Your task to perform on an android device: Search for logitech g pro on ebay.com, select the first entry, and add it to the cart. Image 0: 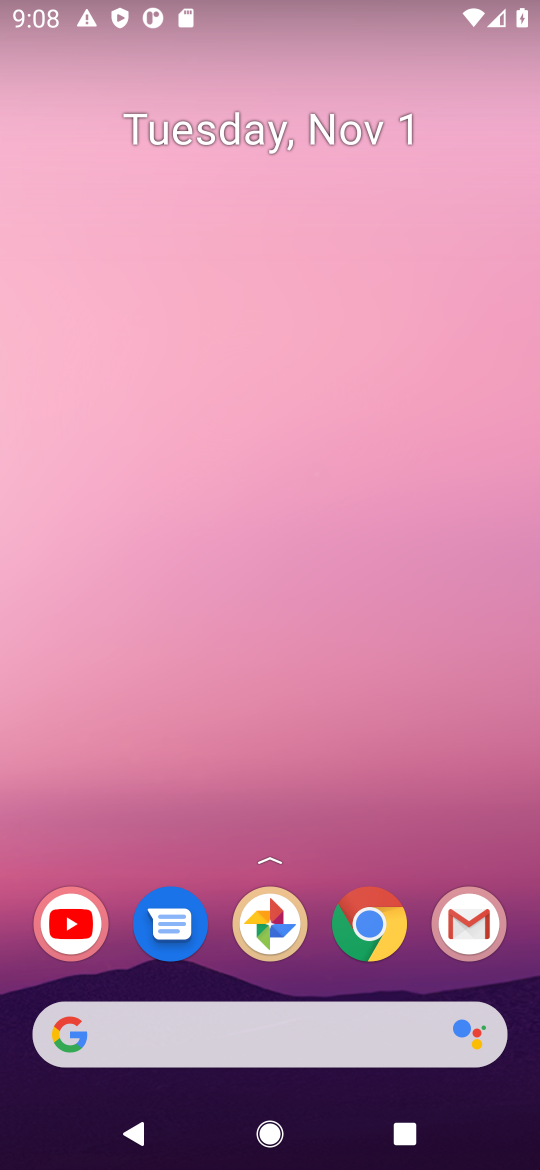
Step 0: click (362, 921)
Your task to perform on an android device: Search for logitech g pro on ebay.com, select the first entry, and add it to the cart. Image 1: 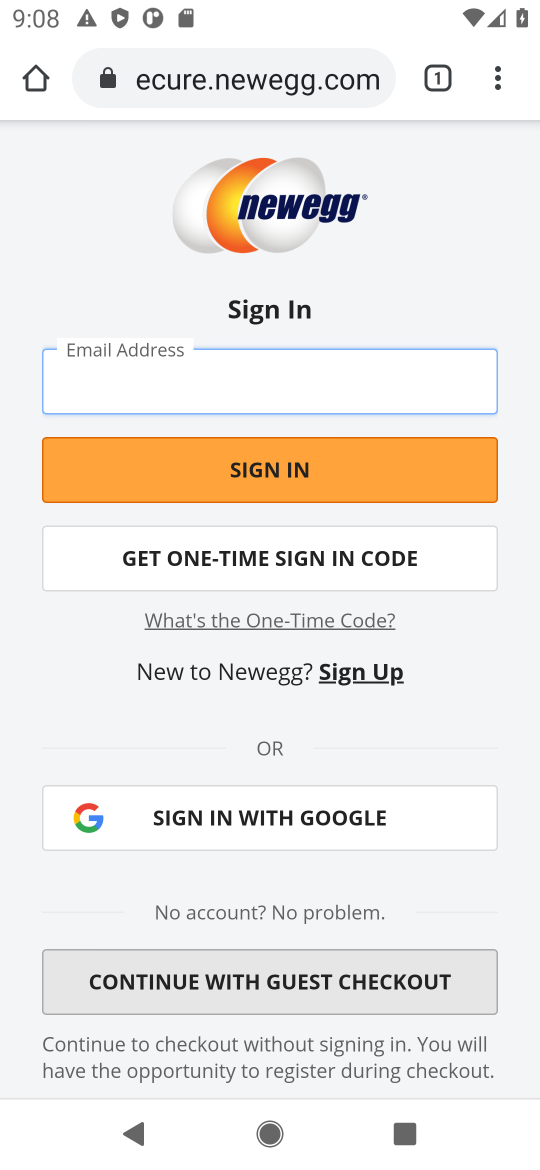
Step 1: click (206, 73)
Your task to perform on an android device: Search for logitech g pro on ebay.com, select the first entry, and add it to the cart. Image 2: 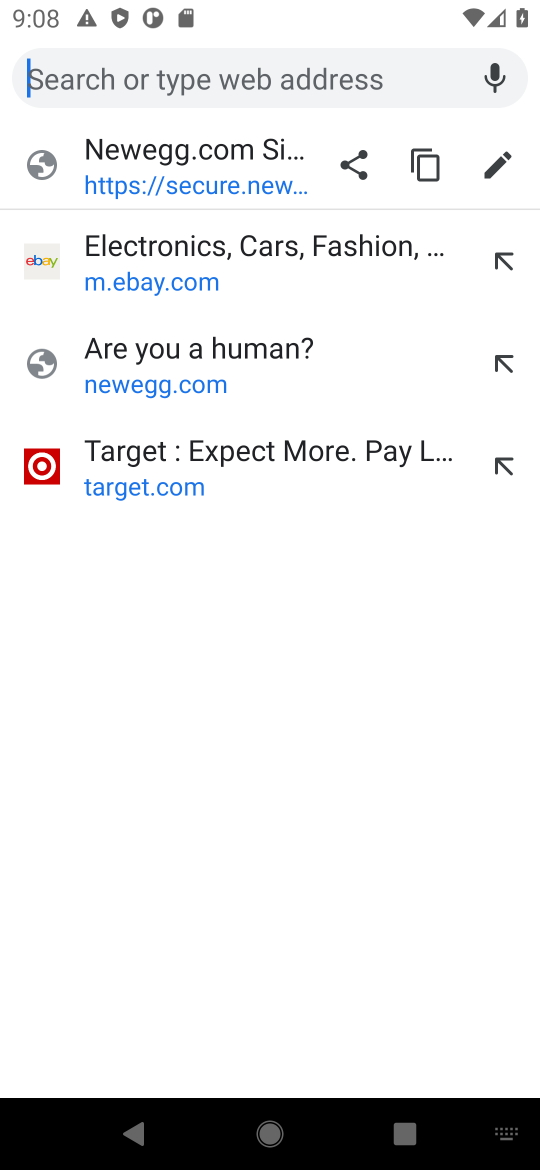
Step 2: type "ebay"
Your task to perform on an android device: Search for logitech g pro on ebay.com, select the first entry, and add it to the cart. Image 3: 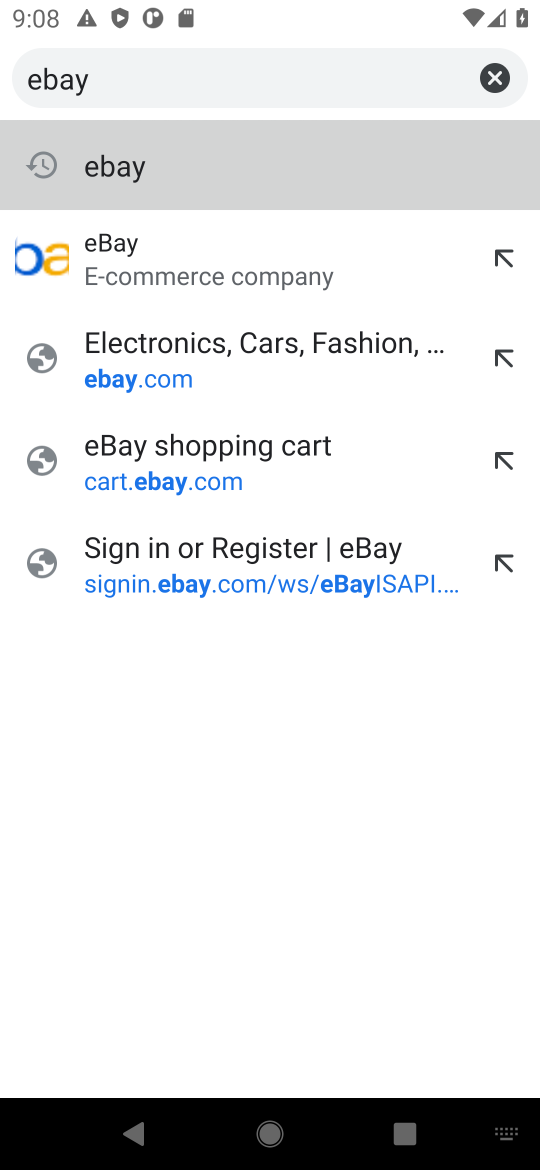
Step 3: click (133, 172)
Your task to perform on an android device: Search for logitech g pro on ebay.com, select the first entry, and add it to the cart. Image 4: 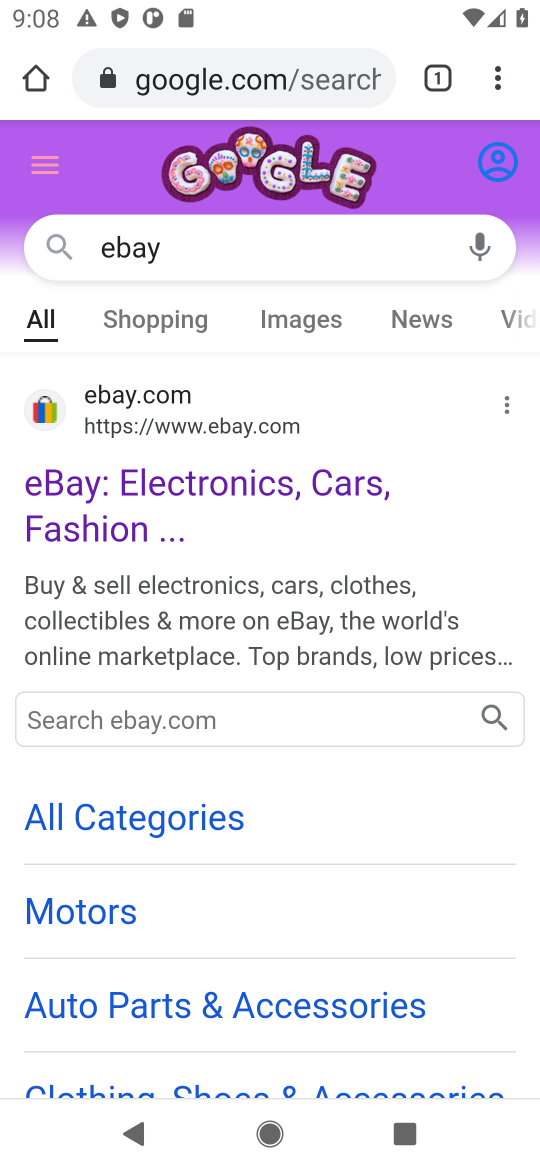
Step 4: click (88, 482)
Your task to perform on an android device: Search for logitech g pro on ebay.com, select the first entry, and add it to the cart. Image 5: 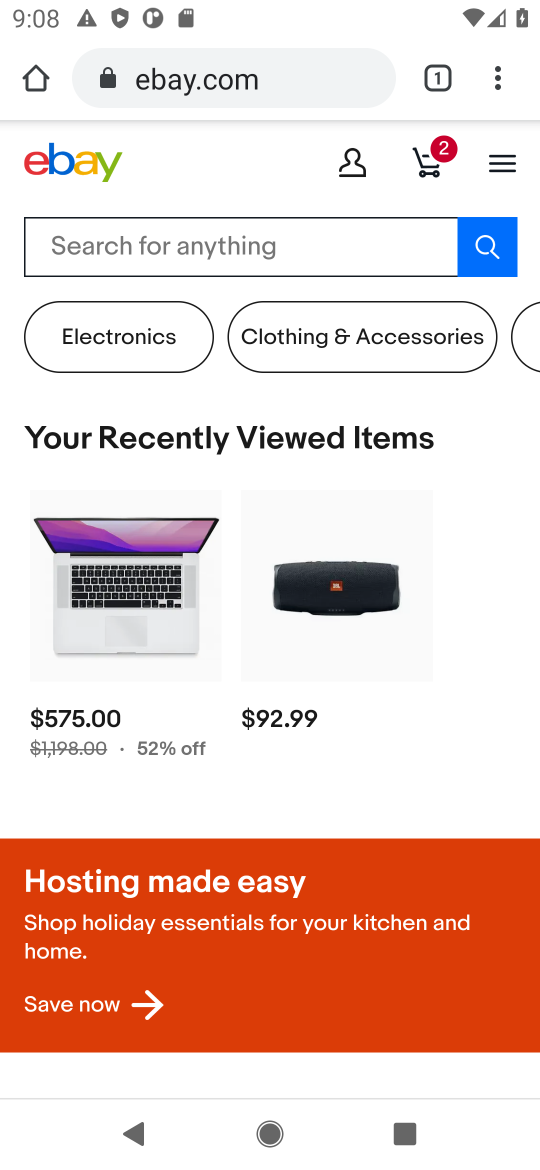
Step 5: click (270, 249)
Your task to perform on an android device: Search for logitech g pro on ebay.com, select the first entry, and add it to the cart. Image 6: 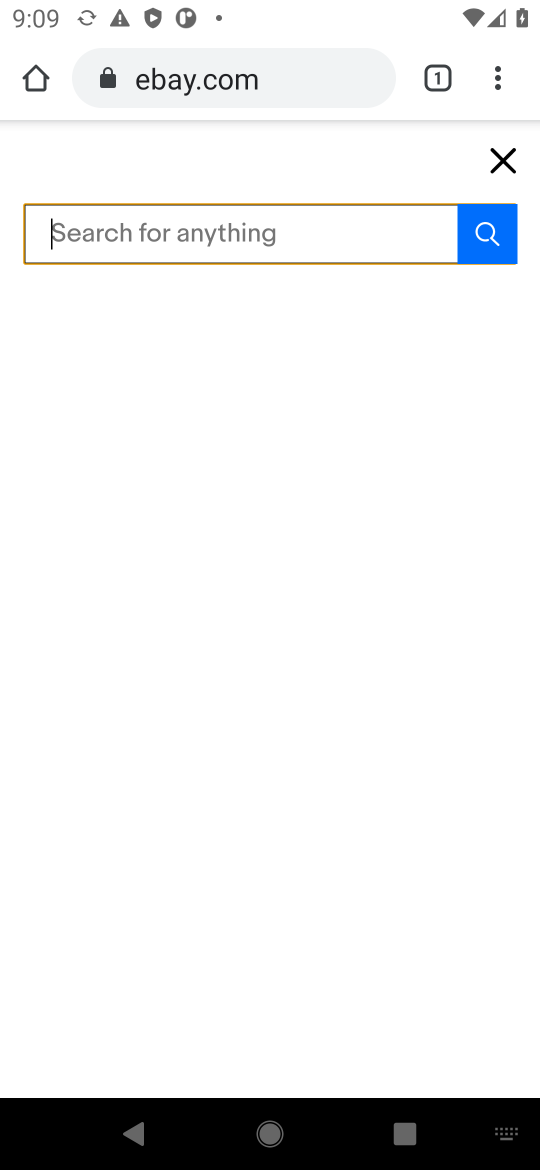
Step 6: type "logitech g pro"
Your task to perform on an android device: Search for logitech g pro on ebay.com, select the first entry, and add it to the cart. Image 7: 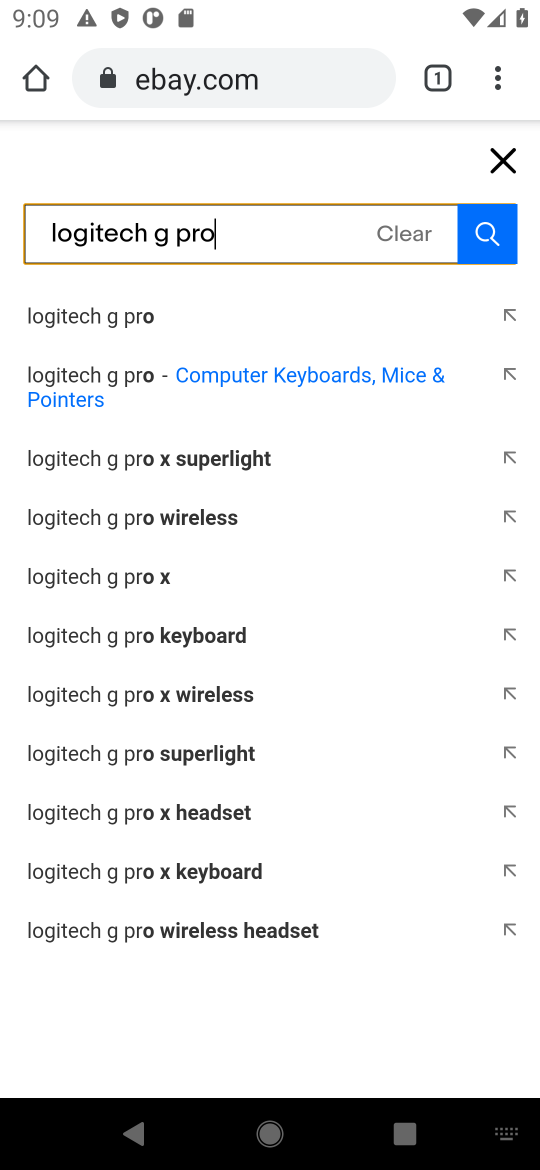
Step 7: click (66, 322)
Your task to perform on an android device: Search for logitech g pro on ebay.com, select the first entry, and add it to the cart. Image 8: 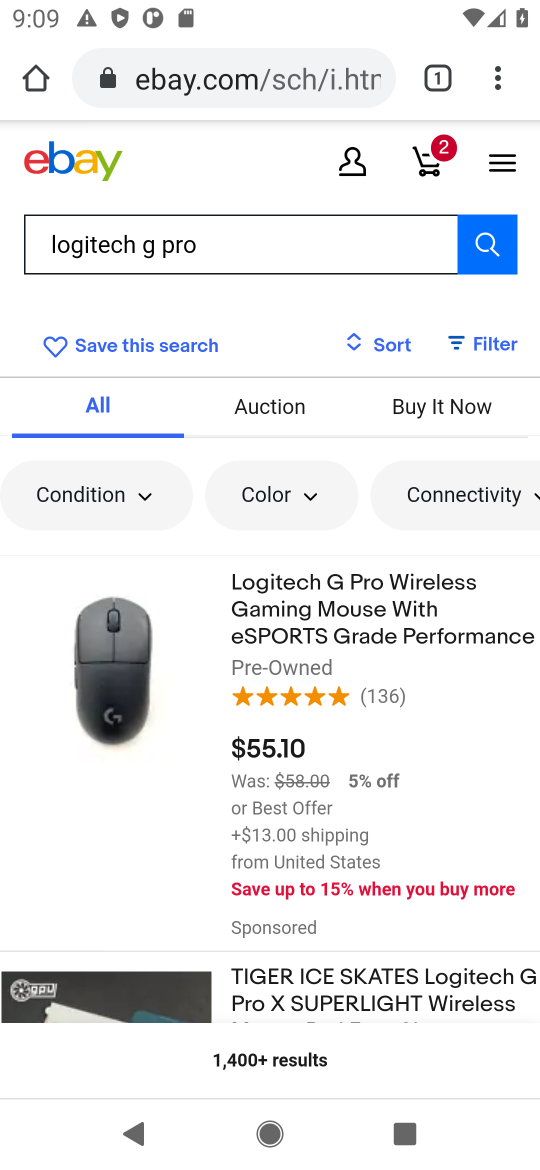
Step 8: click (194, 630)
Your task to perform on an android device: Search for logitech g pro on ebay.com, select the first entry, and add it to the cart. Image 9: 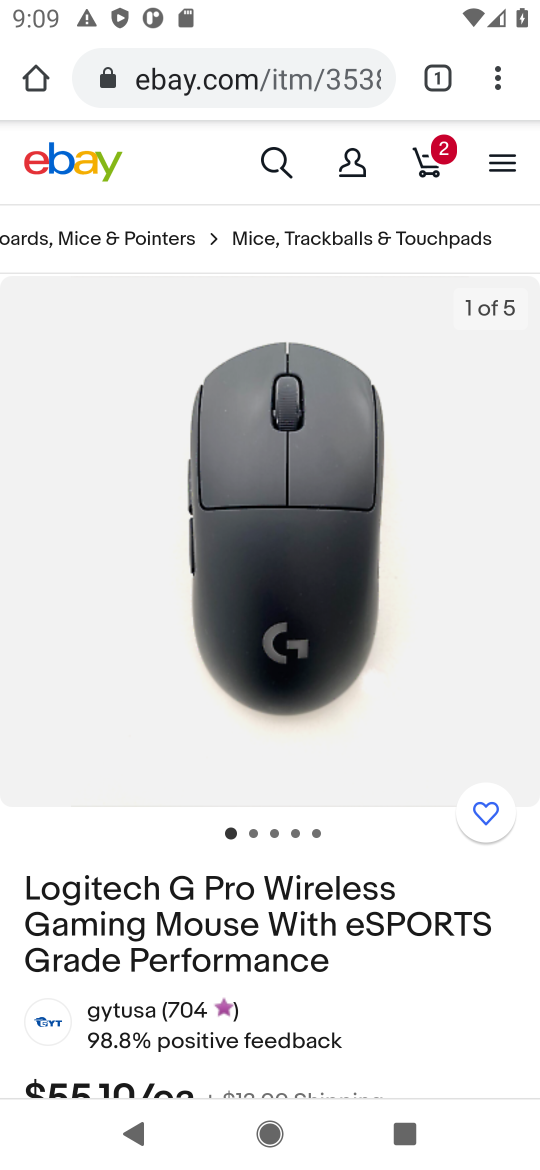
Step 9: drag from (378, 1009) to (321, 256)
Your task to perform on an android device: Search for logitech g pro on ebay.com, select the first entry, and add it to the cart. Image 10: 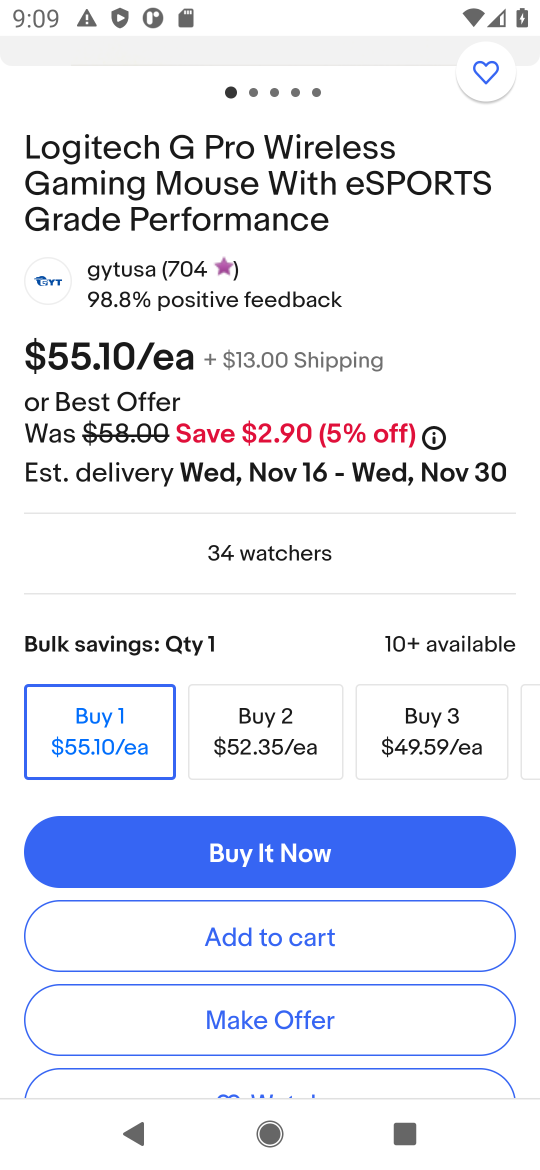
Step 10: click (202, 934)
Your task to perform on an android device: Search for logitech g pro on ebay.com, select the first entry, and add it to the cart. Image 11: 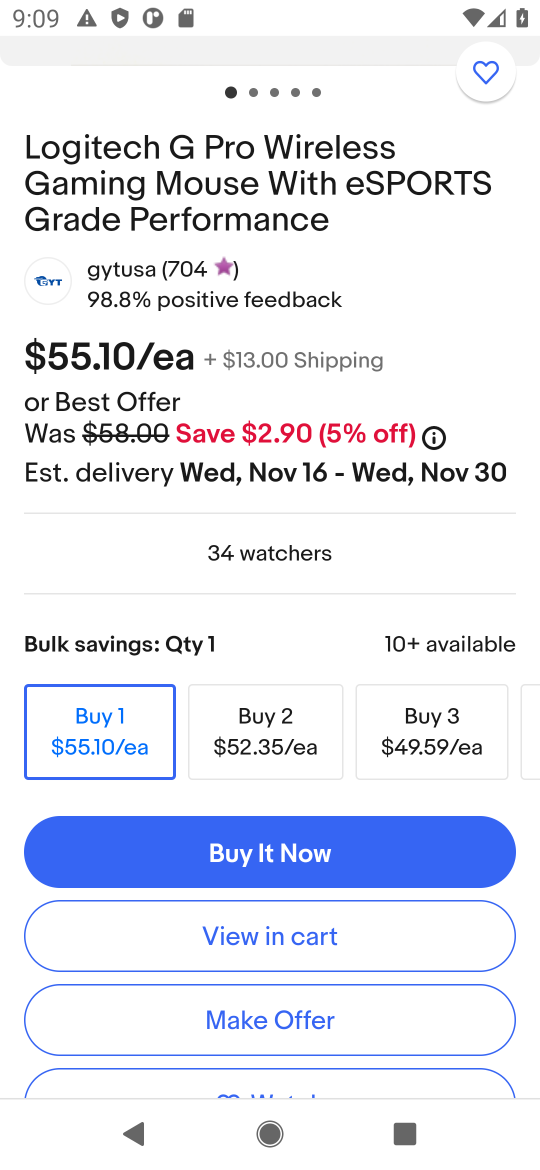
Step 11: task complete